Your task to perform on an android device: Open Amazon Image 0: 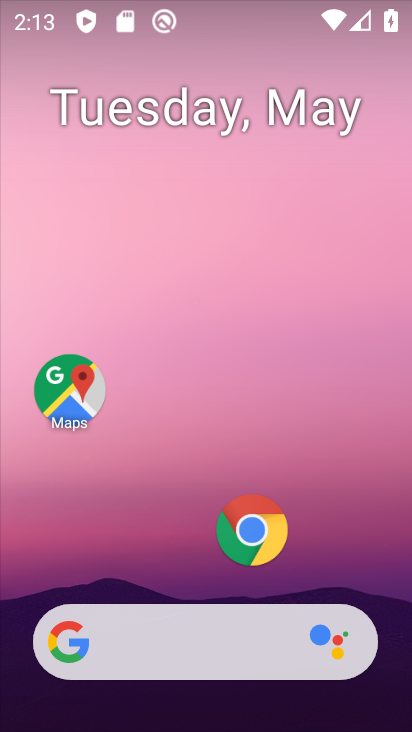
Step 0: press home button
Your task to perform on an android device: Open Amazon Image 1: 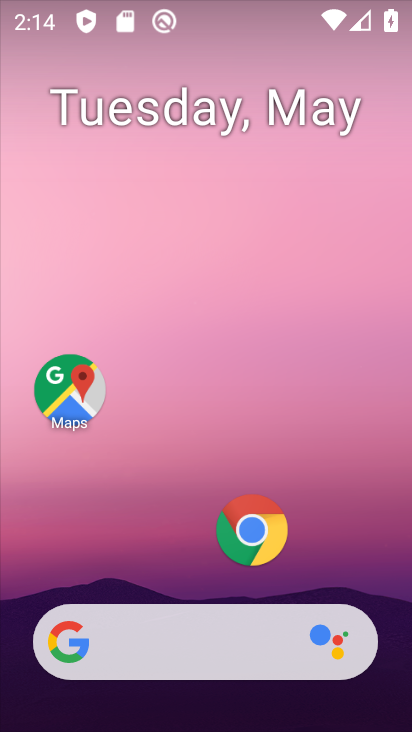
Step 1: click (247, 523)
Your task to perform on an android device: Open Amazon Image 2: 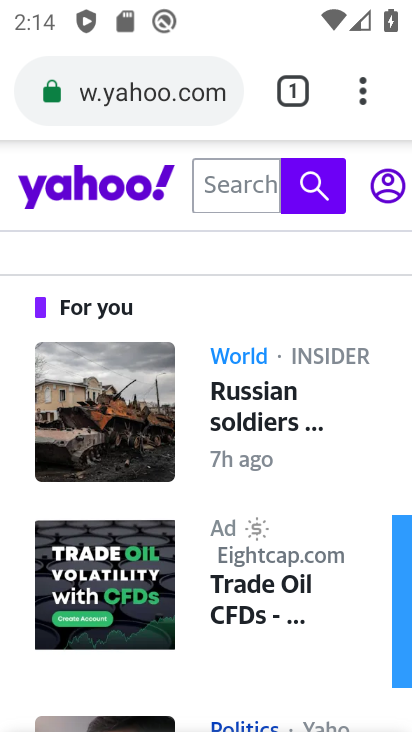
Step 2: click (283, 89)
Your task to perform on an android device: Open Amazon Image 3: 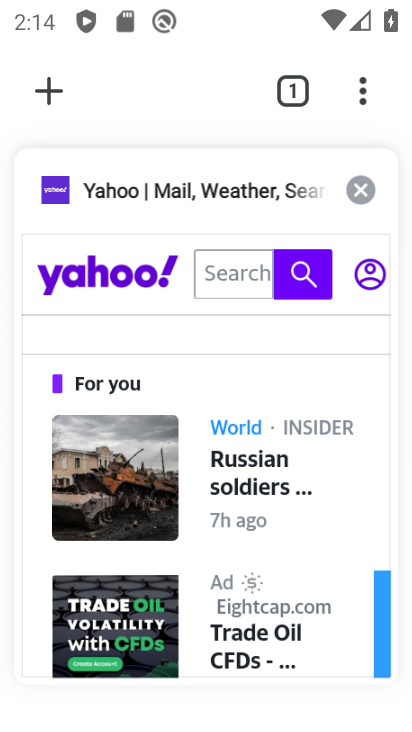
Step 3: click (44, 99)
Your task to perform on an android device: Open Amazon Image 4: 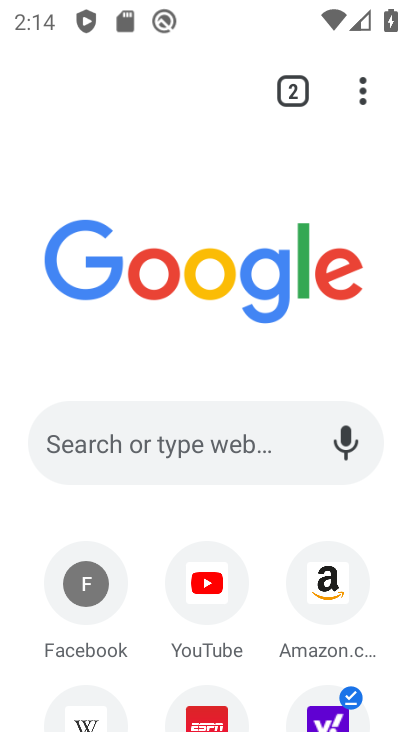
Step 4: click (311, 577)
Your task to perform on an android device: Open Amazon Image 5: 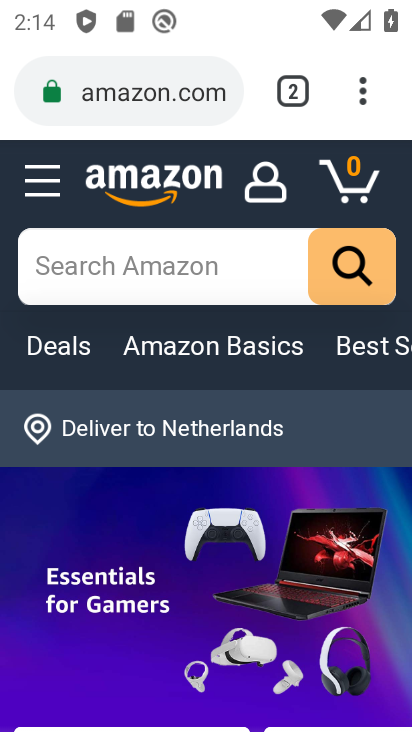
Step 5: task complete